Your task to perform on an android device: Open privacy settings Image 0: 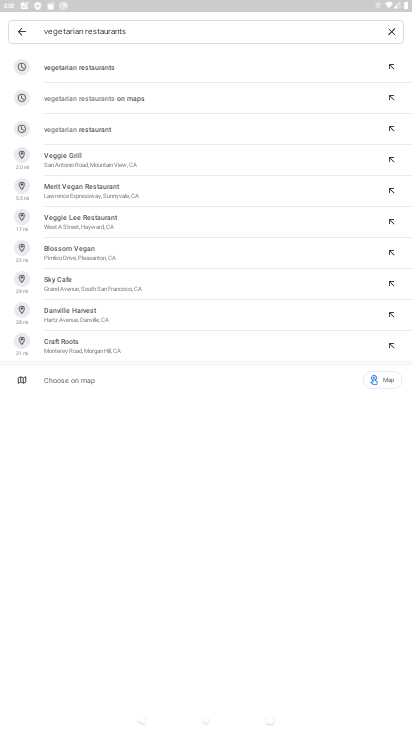
Step 0: click (301, 634)
Your task to perform on an android device: Open privacy settings Image 1: 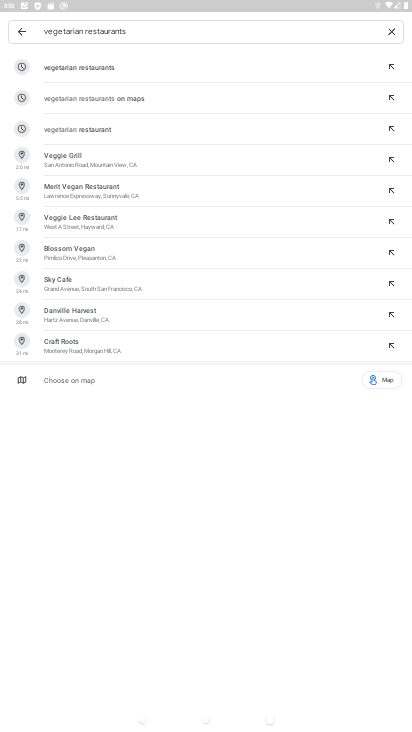
Step 1: press home button
Your task to perform on an android device: Open privacy settings Image 2: 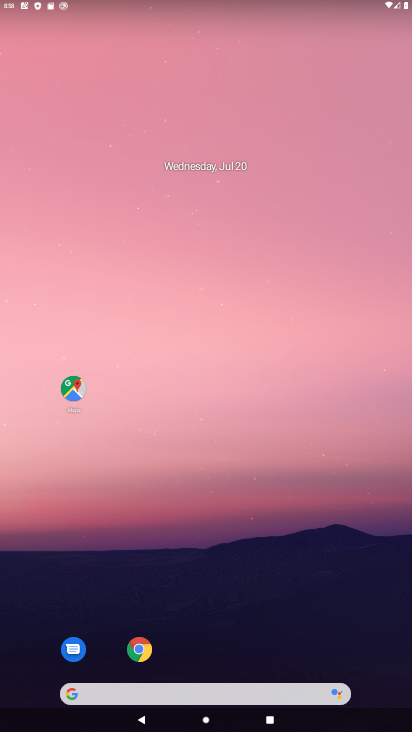
Step 2: drag from (234, 650) to (246, 211)
Your task to perform on an android device: Open privacy settings Image 3: 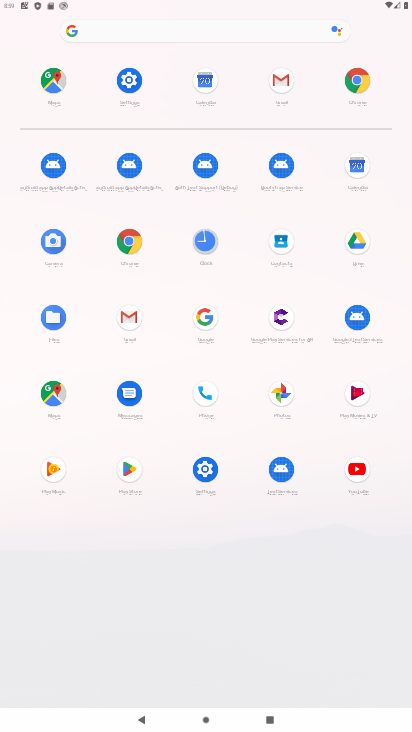
Step 3: click (138, 96)
Your task to perform on an android device: Open privacy settings Image 4: 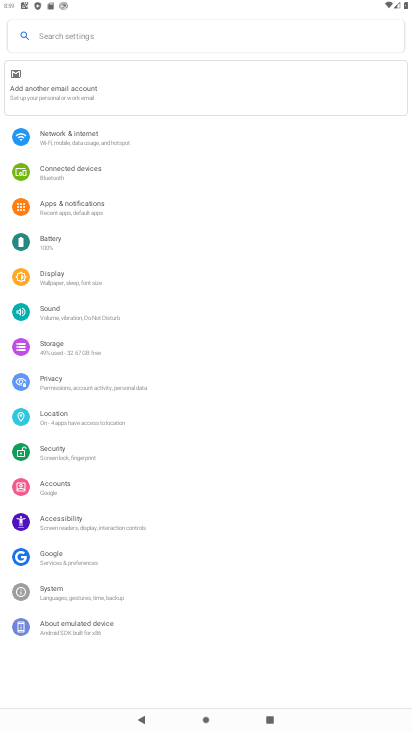
Step 4: task complete